Your task to perform on an android device: Open eBay Image 0: 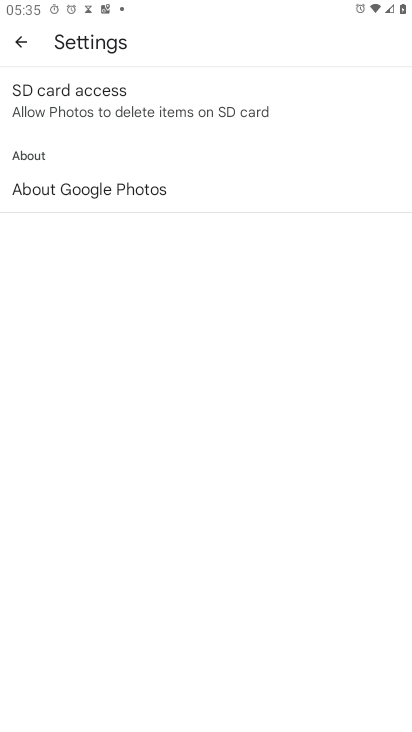
Step 0: press home button
Your task to perform on an android device: Open eBay Image 1: 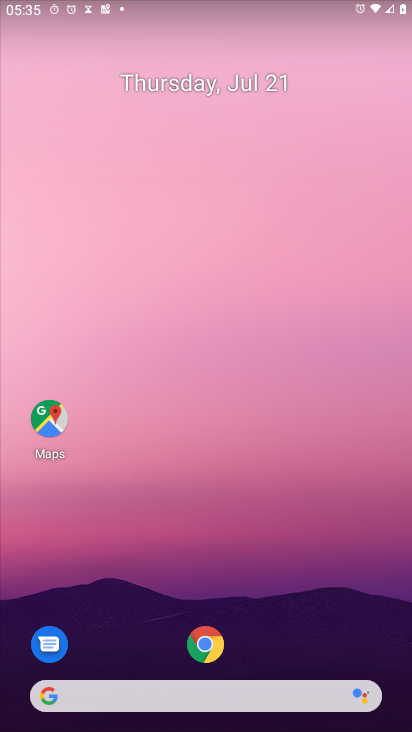
Step 1: click (51, 698)
Your task to perform on an android device: Open eBay Image 2: 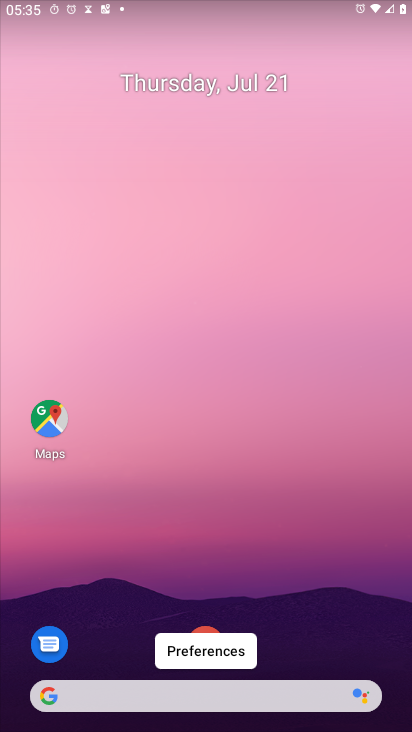
Step 2: type " eBay"
Your task to perform on an android device: Open eBay Image 3: 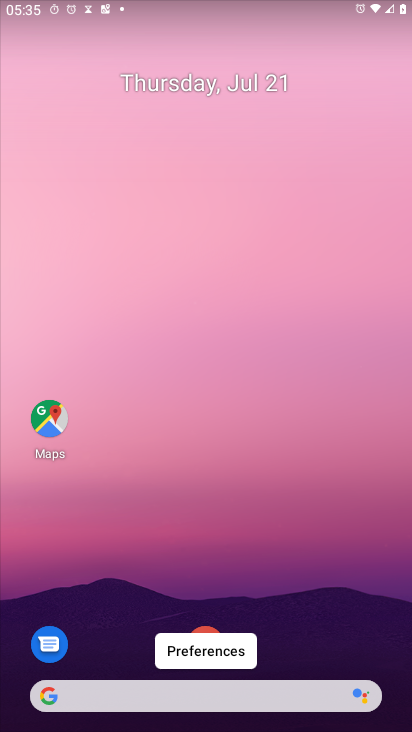
Step 3: click (64, 698)
Your task to perform on an android device: Open eBay Image 4: 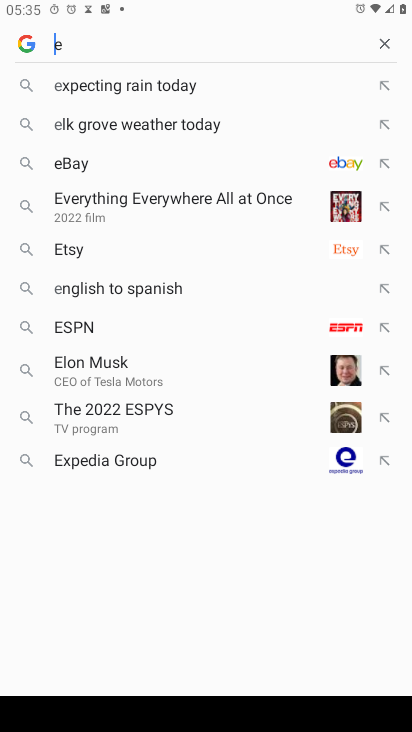
Step 4: click (330, 161)
Your task to perform on an android device: Open eBay Image 5: 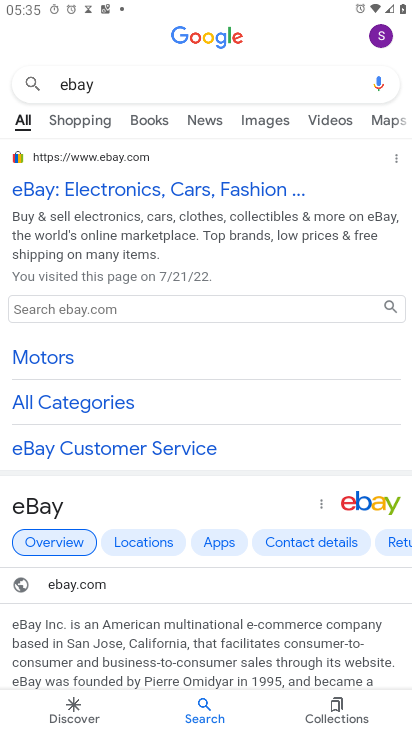
Step 5: click (118, 187)
Your task to perform on an android device: Open eBay Image 6: 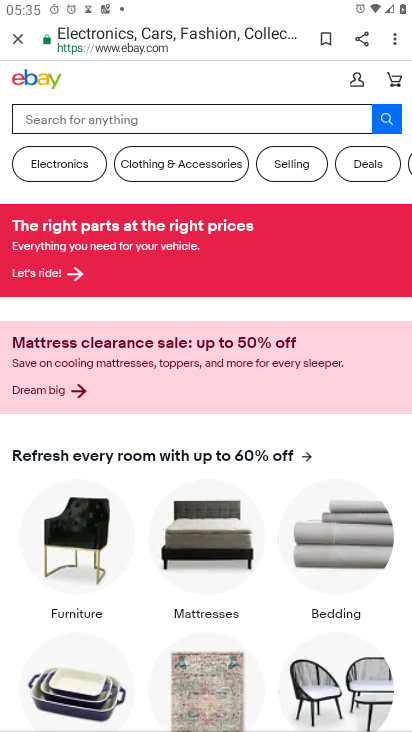
Step 6: task complete